Your task to perform on an android device: turn on javascript in the chrome app Image 0: 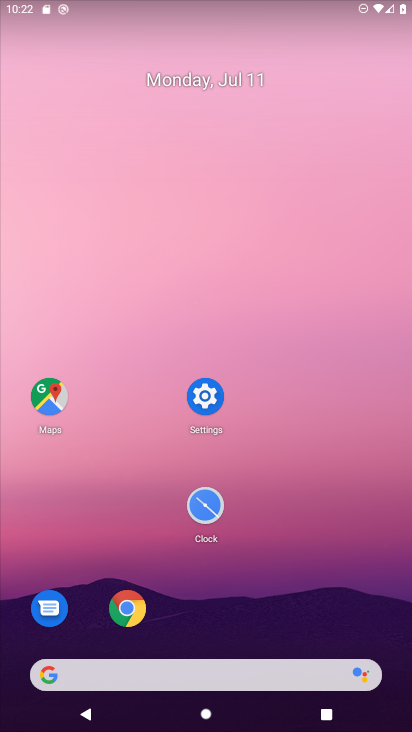
Step 0: click (115, 606)
Your task to perform on an android device: turn on javascript in the chrome app Image 1: 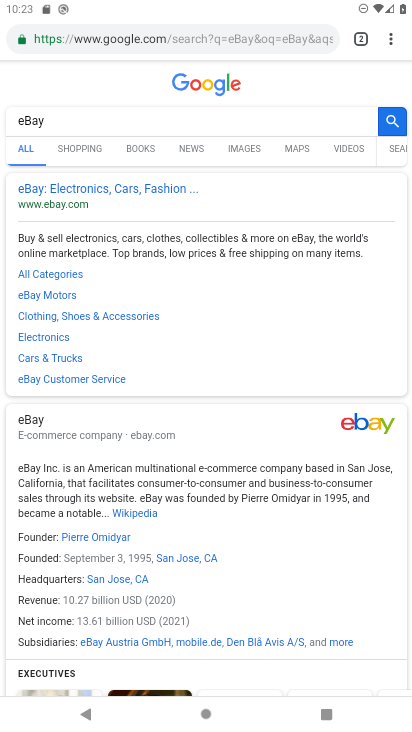
Step 1: click (389, 40)
Your task to perform on an android device: turn on javascript in the chrome app Image 2: 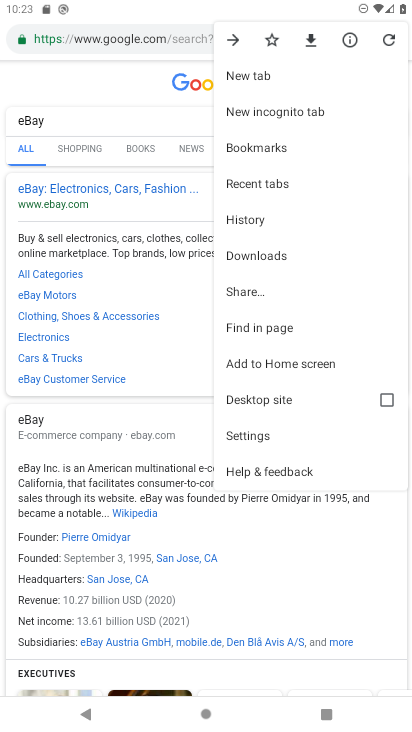
Step 2: click (245, 433)
Your task to perform on an android device: turn on javascript in the chrome app Image 3: 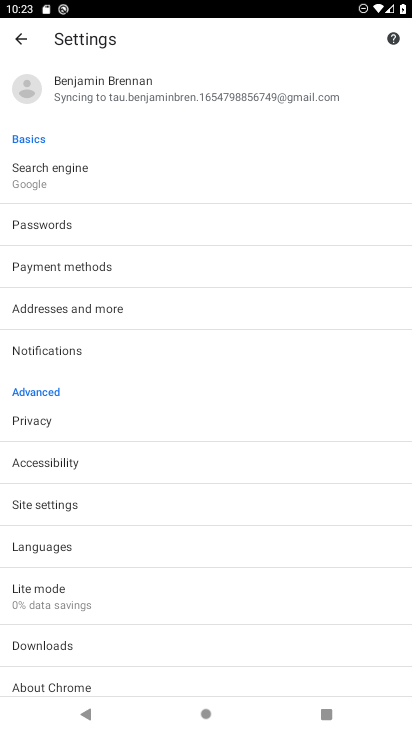
Step 3: click (53, 506)
Your task to perform on an android device: turn on javascript in the chrome app Image 4: 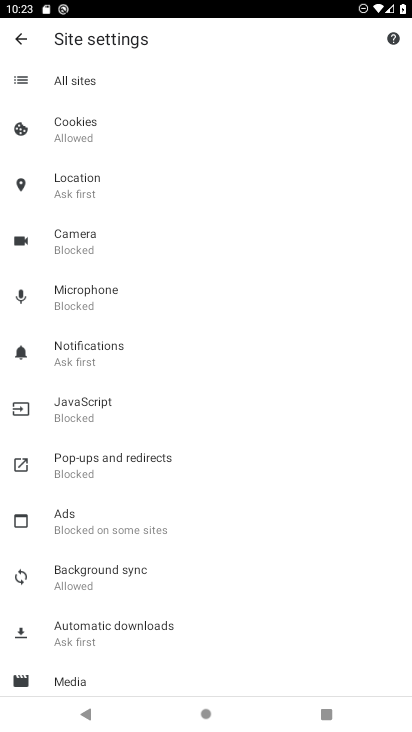
Step 4: click (85, 396)
Your task to perform on an android device: turn on javascript in the chrome app Image 5: 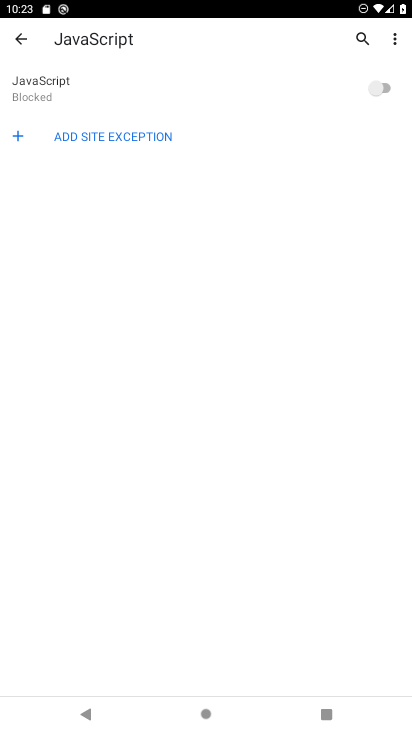
Step 5: click (383, 85)
Your task to perform on an android device: turn on javascript in the chrome app Image 6: 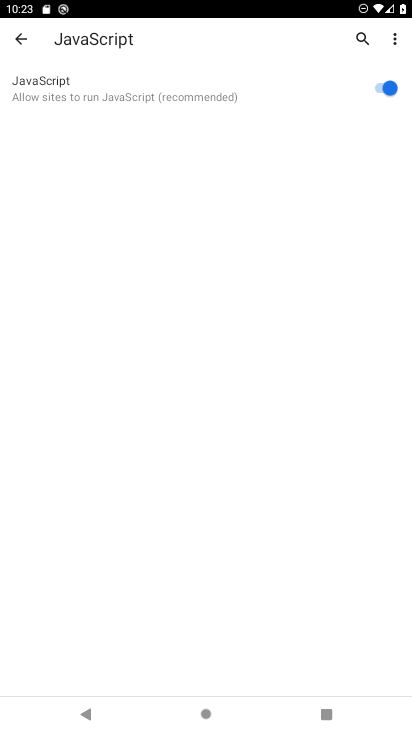
Step 6: task complete